Your task to perform on an android device: Is it going to rain this weekend? Image 0: 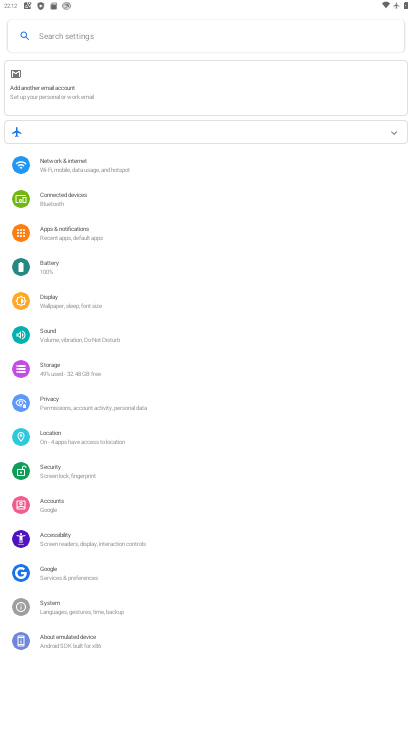
Step 0: press home button
Your task to perform on an android device: Is it going to rain this weekend? Image 1: 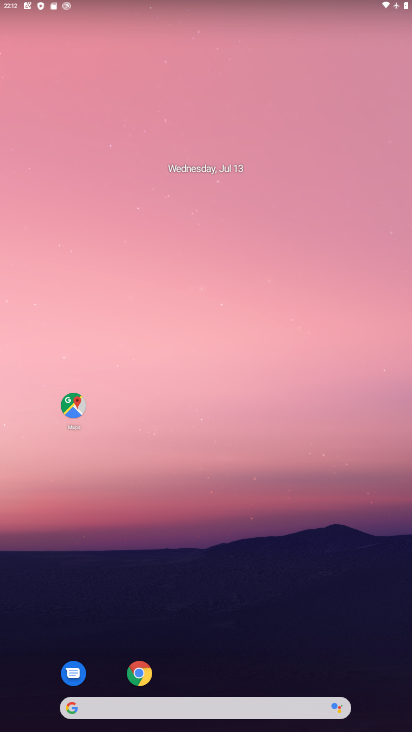
Step 1: drag from (192, 654) to (216, 266)
Your task to perform on an android device: Is it going to rain this weekend? Image 2: 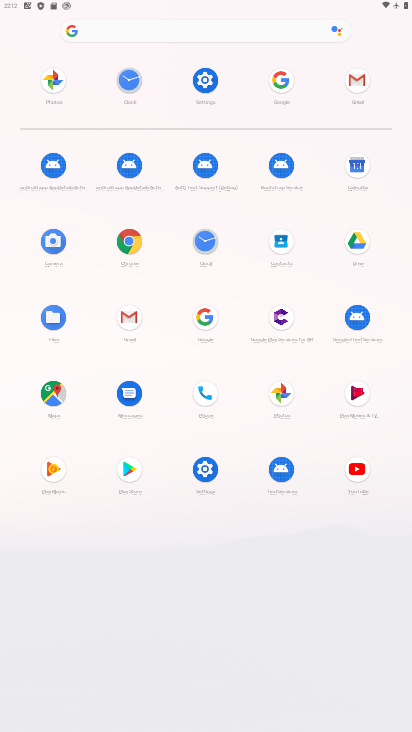
Step 2: click (278, 95)
Your task to perform on an android device: Is it going to rain this weekend? Image 3: 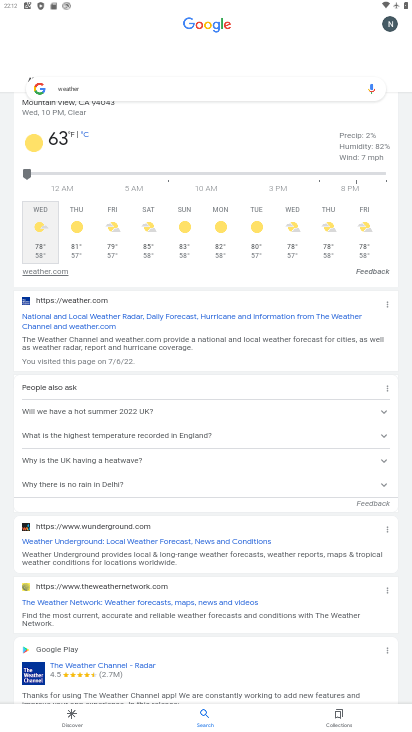
Step 3: task complete